Your task to perform on an android device: Show me popular videos on Youtube Image 0: 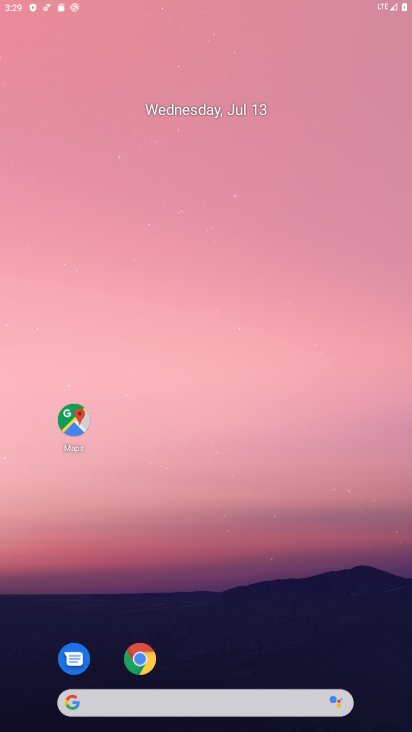
Step 0: press home button
Your task to perform on an android device: Show me popular videos on Youtube Image 1: 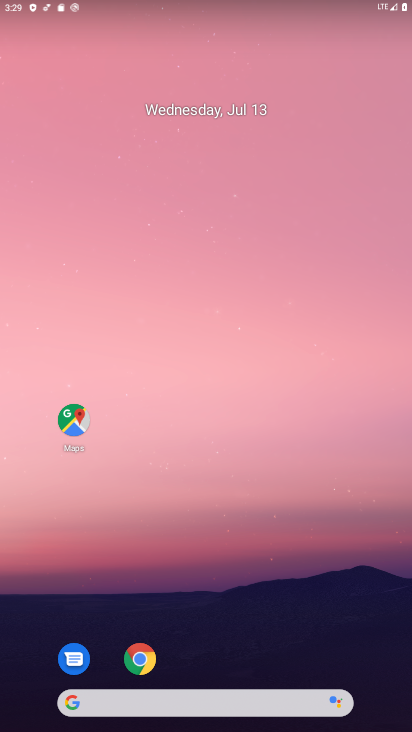
Step 1: drag from (231, 479) to (275, 70)
Your task to perform on an android device: Show me popular videos on Youtube Image 2: 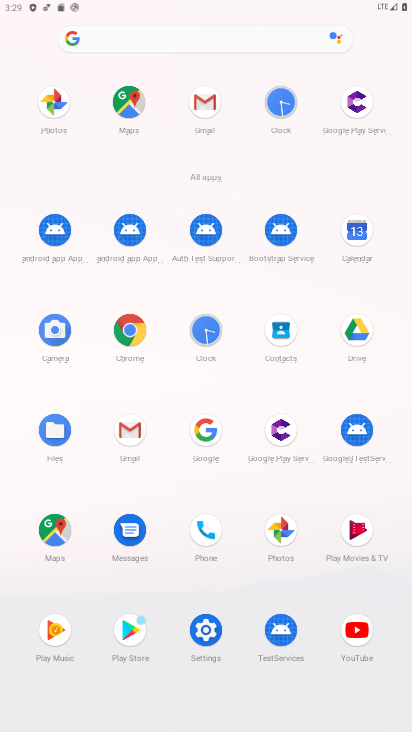
Step 2: click (360, 623)
Your task to perform on an android device: Show me popular videos on Youtube Image 3: 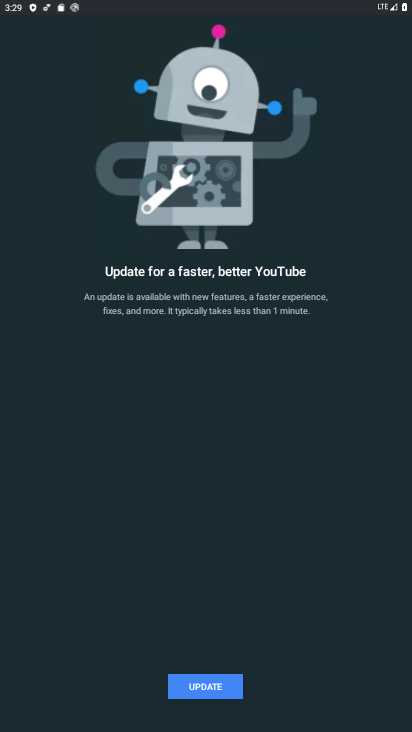
Step 3: click (210, 680)
Your task to perform on an android device: Show me popular videos on Youtube Image 4: 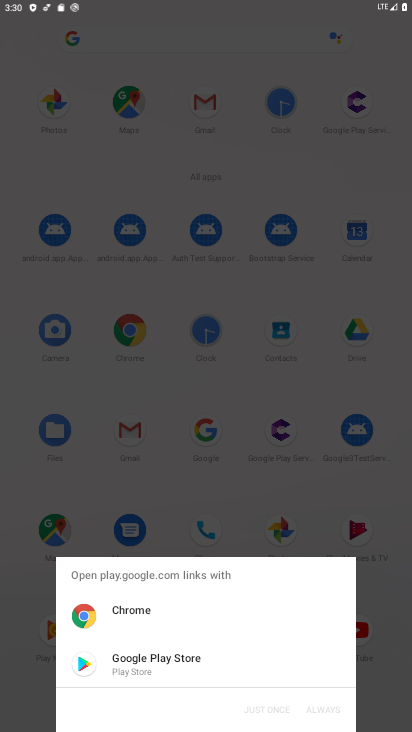
Step 4: click (122, 671)
Your task to perform on an android device: Show me popular videos on Youtube Image 5: 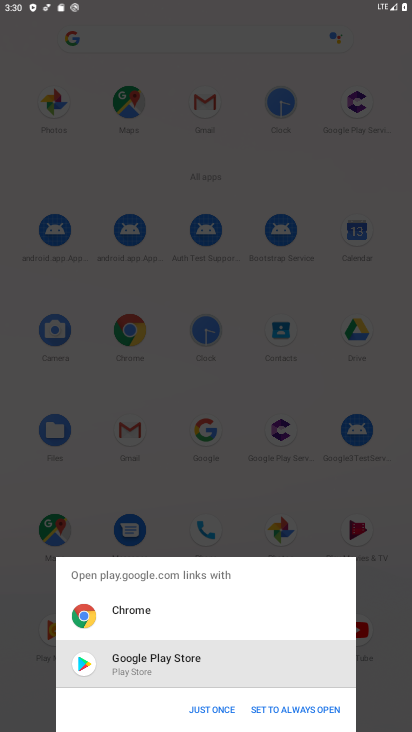
Step 5: click (204, 710)
Your task to perform on an android device: Show me popular videos on Youtube Image 6: 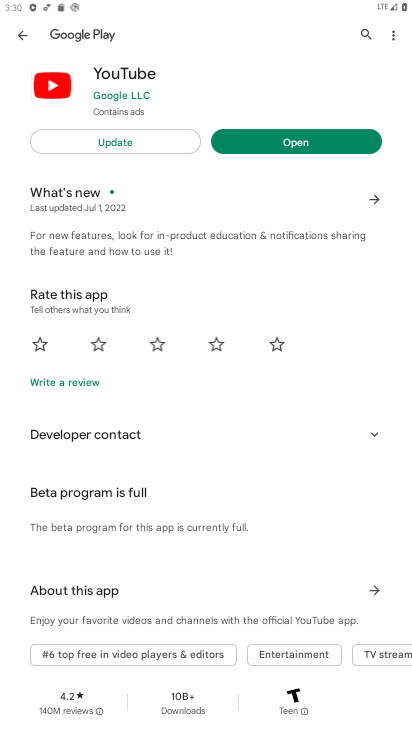
Step 6: click (118, 138)
Your task to perform on an android device: Show me popular videos on Youtube Image 7: 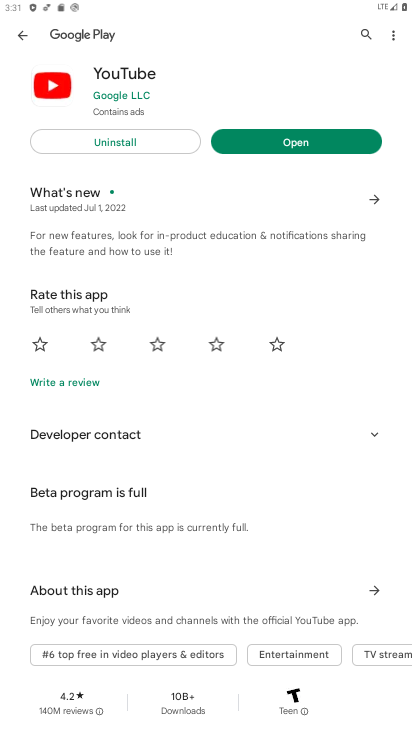
Step 7: click (298, 141)
Your task to perform on an android device: Show me popular videos on Youtube Image 8: 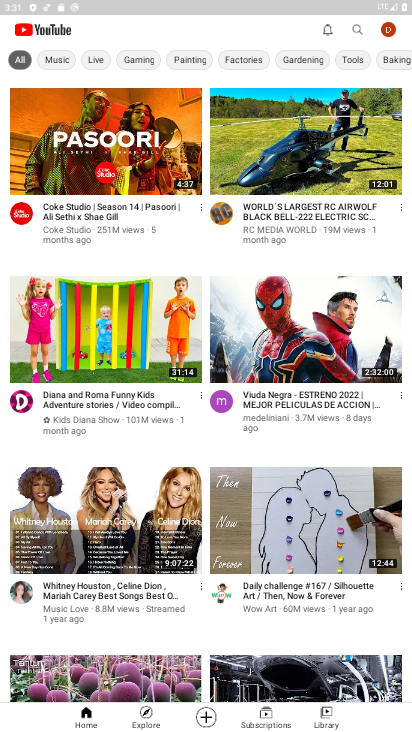
Step 8: drag from (176, 457) to (190, 135)
Your task to perform on an android device: Show me popular videos on Youtube Image 9: 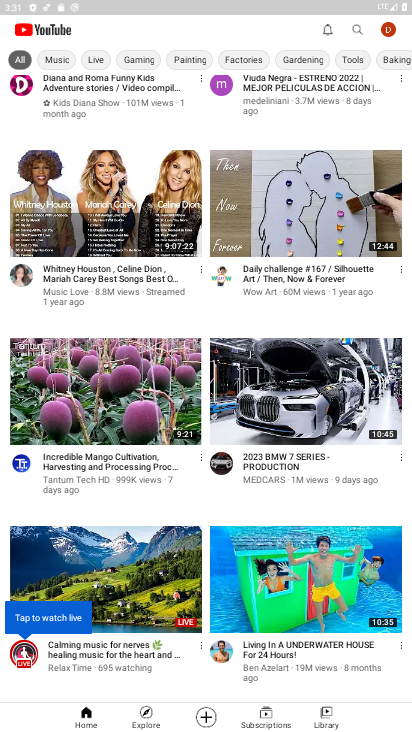
Step 9: drag from (190, 132) to (191, 677)
Your task to perform on an android device: Show me popular videos on Youtube Image 10: 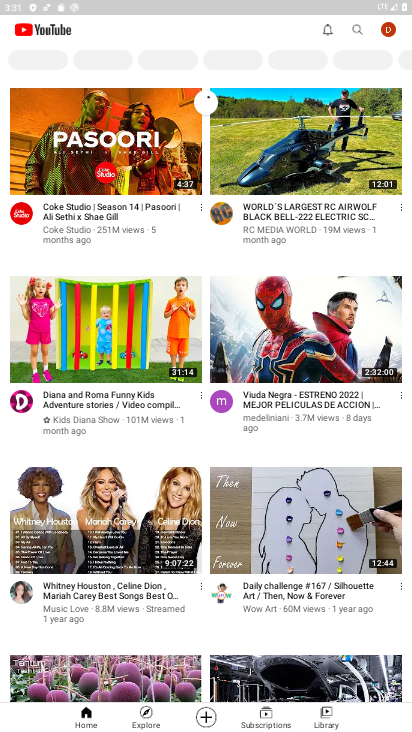
Step 10: drag from (189, 665) to (237, 159)
Your task to perform on an android device: Show me popular videos on Youtube Image 11: 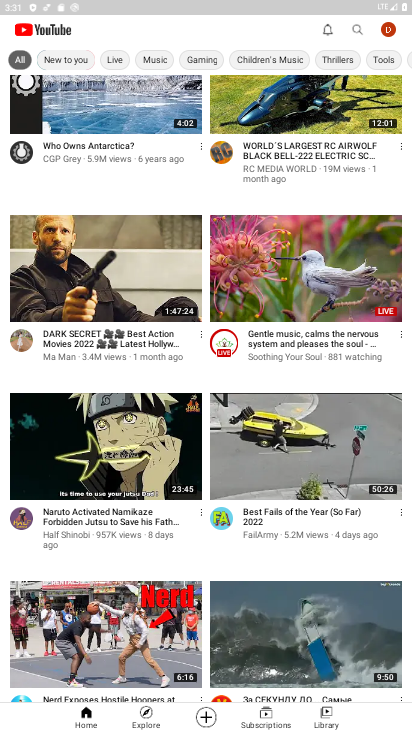
Step 11: drag from (196, 581) to (191, 158)
Your task to perform on an android device: Show me popular videos on Youtube Image 12: 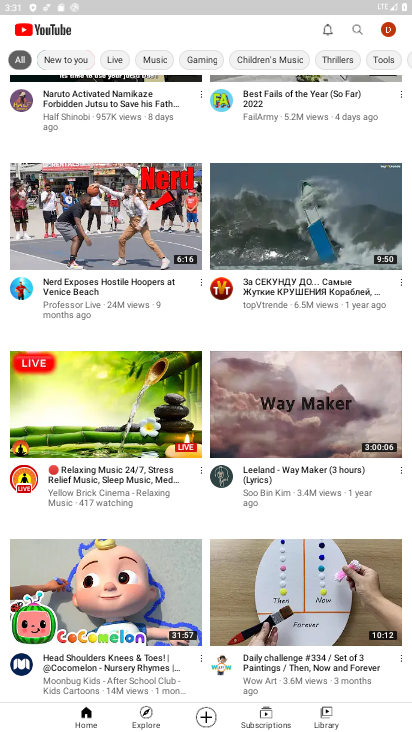
Step 12: click (322, 721)
Your task to perform on an android device: Show me popular videos on Youtube Image 13: 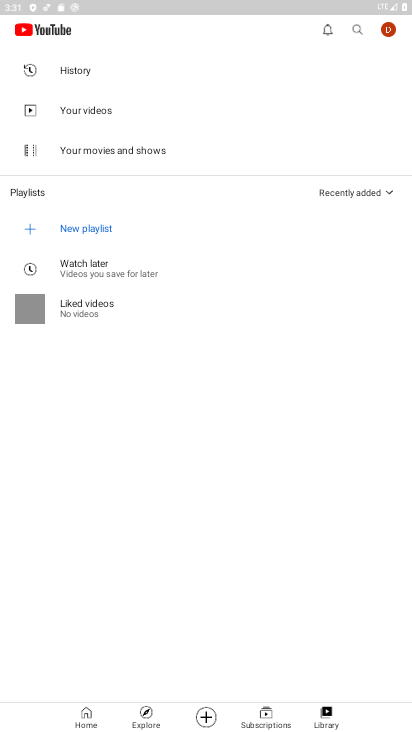
Step 13: click (144, 718)
Your task to perform on an android device: Show me popular videos on Youtube Image 14: 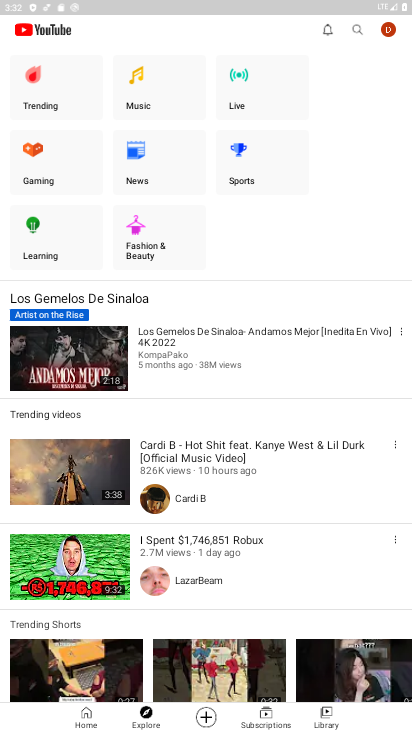
Step 14: click (51, 89)
Your task to perform on an android device: Show me popular videos on Youtube Image 15: 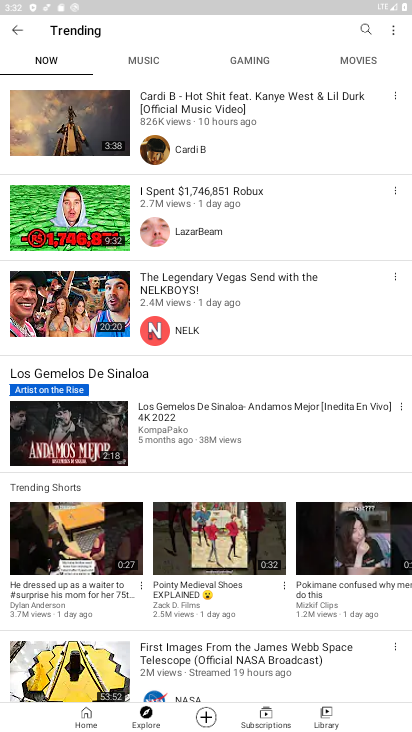
Step 15: task complete